Your task to perform on an android device: Go to notification settings Image 0: 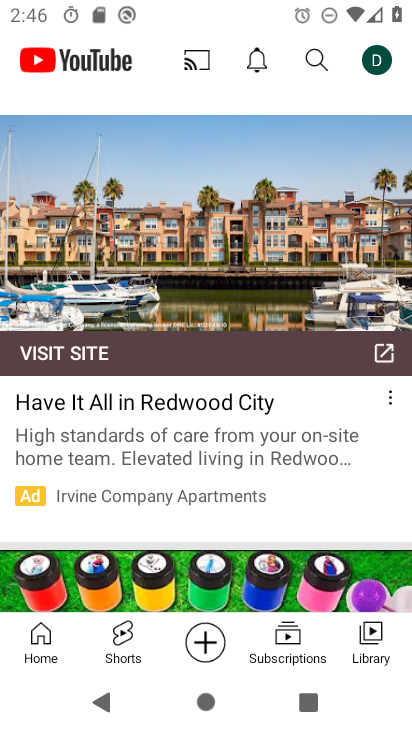
Step 0: drag from (179, 586) to (234, 108)
Your task to perform on an android device: Go to notification settings Image 1: 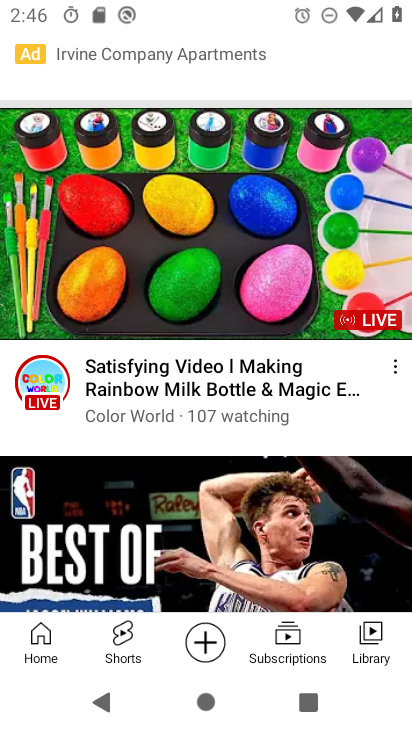
Step 1: drag from (342, 140) to (293, 711)
Your task to perform on an android device: Go to notification settings Image 2: 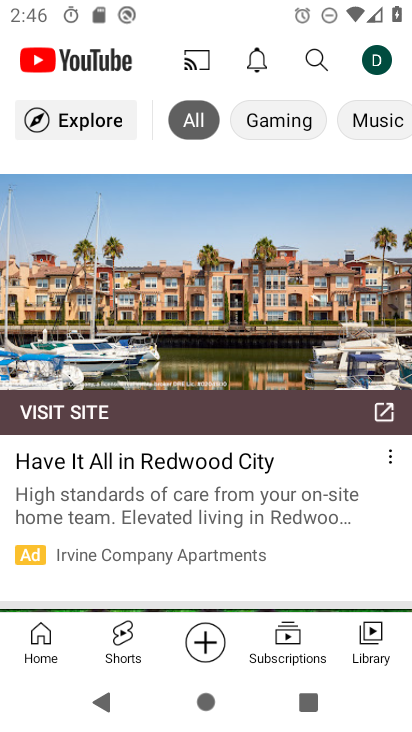
Step 2: click (378, 50)
Your task to perform on an android device: Go to notification settings Image 3: 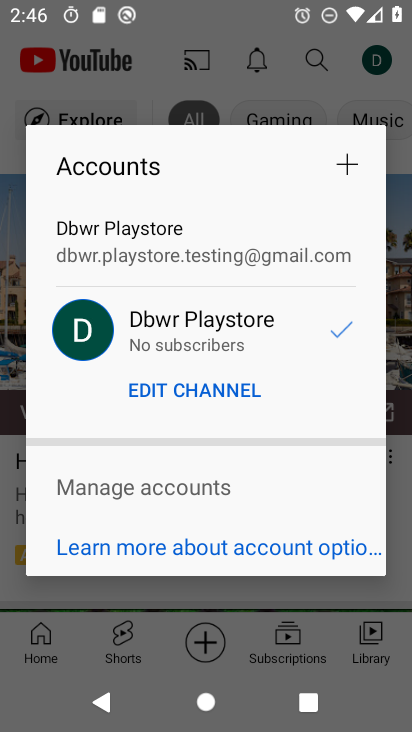
Step 3: press home button
Your task to perform on an android device: Go to notification settings Image 4: 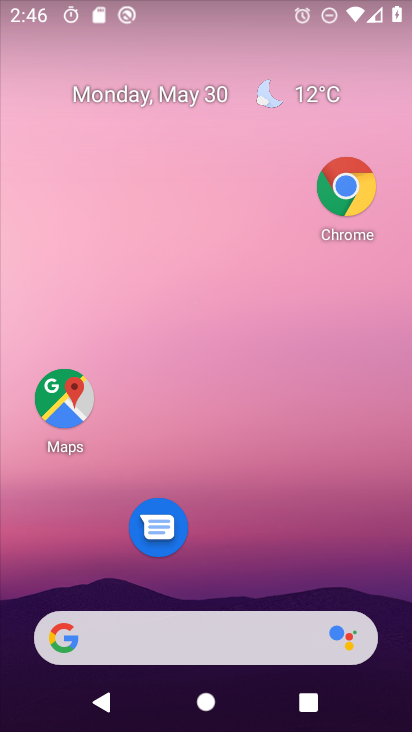
Step 4: drag from (215, 512) to (274, 75)
Your task to perform on an android device: Go to notification settings Image 5: 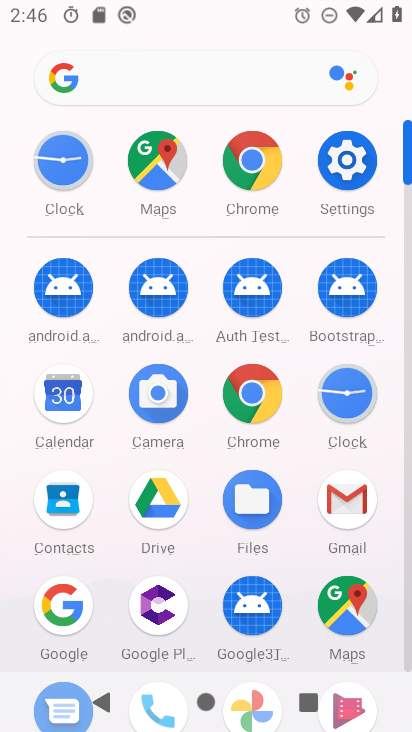
Step 5: click (343, 165)
Your task to perform on an android device: Go to notification settings Image 6: 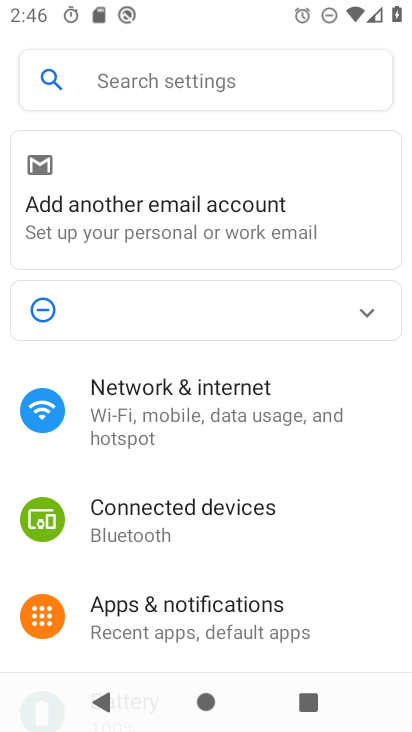
Step 6: drag from (265, 284) to (366, 64)
Your task to perform on an android device: Go to notification settings Image 7: 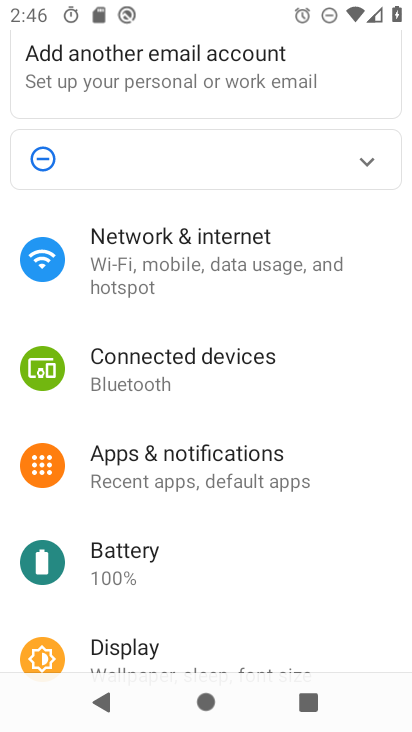
Step 7: click (197, 465)
Your task to perform on an android device: Go to notification settings Image 8: 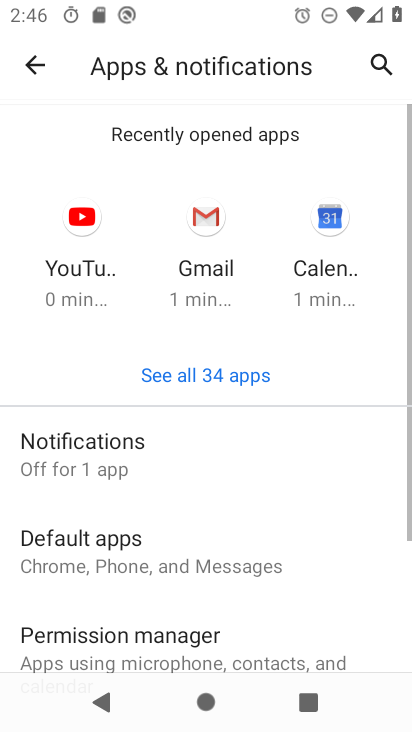
Step 8: click (162, 450)
Your task to perform on an android device: Go to notification settings Image 9: 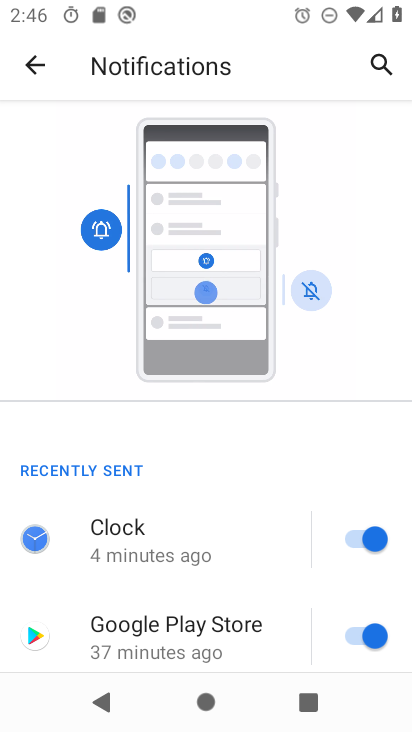
Step 9: task complete